Your task to perform on an android device: Show me recent news Image 0: 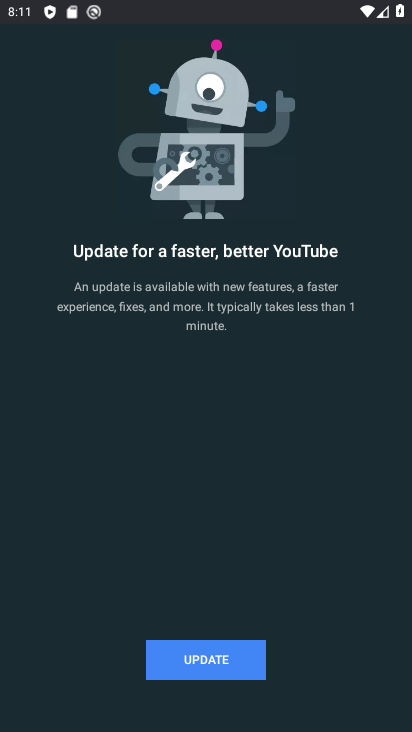
Step 0: press home button
Your task to perform on an android device: Show me recent news Image 1: 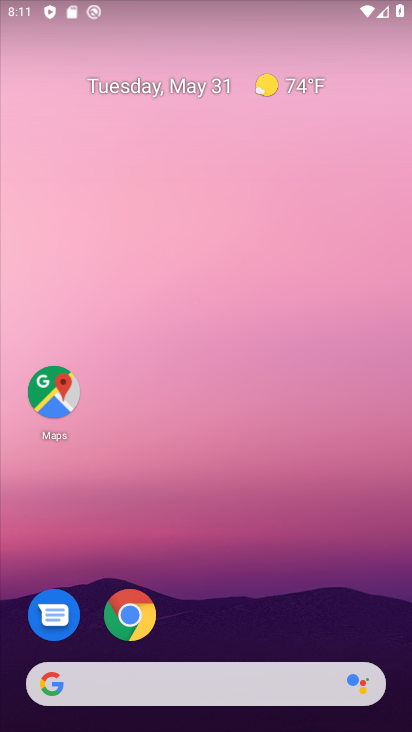
Step 1: drag from (197, 629) to (203, 177)
Your task to perform on an android device: Show me recent news Image 2: 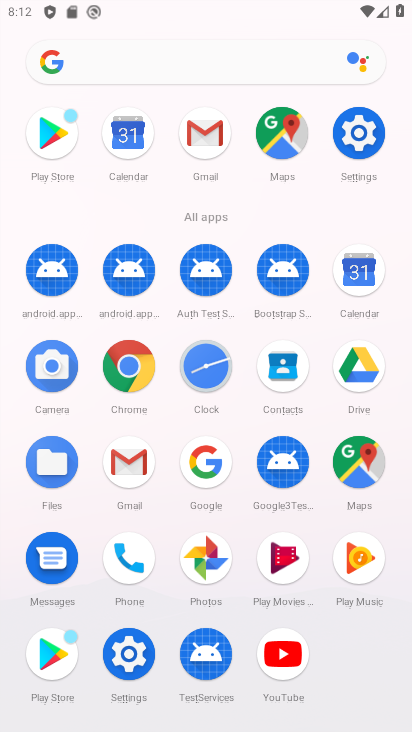
Step 2: click (205, 472)
Your task to perform on an android device: Show me recent news Image 3: 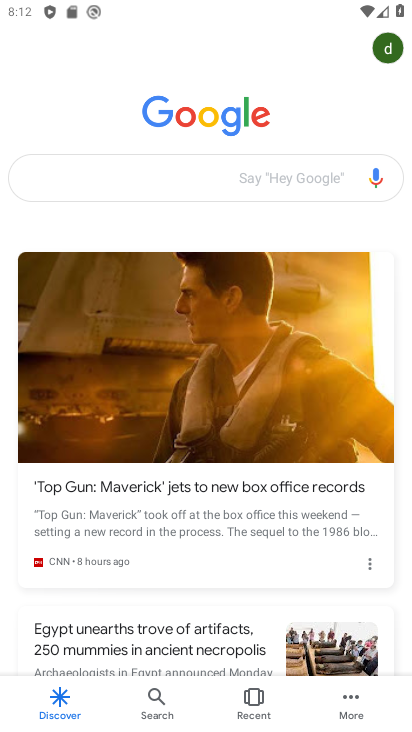
Step 3: click (171, 154)
Your task to perform on an android device: Show me recent news Image 4: 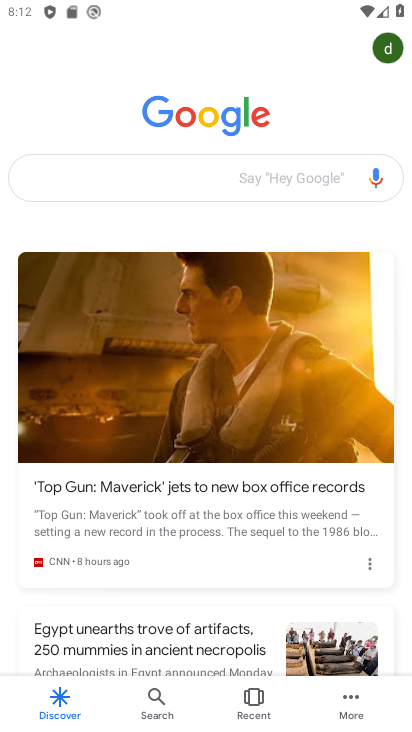
Step 4: click (154, 168)
Your task to perform on an android device: Show me recent news Image 5: 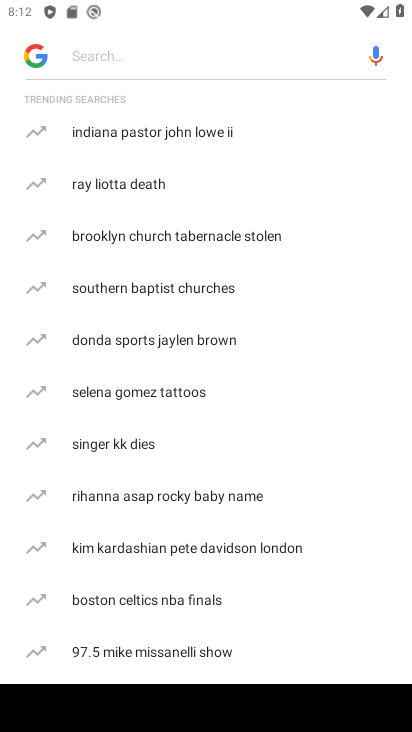
Step 5: type "news"
Your task to perform on an android device: Show me recent news Image 6: 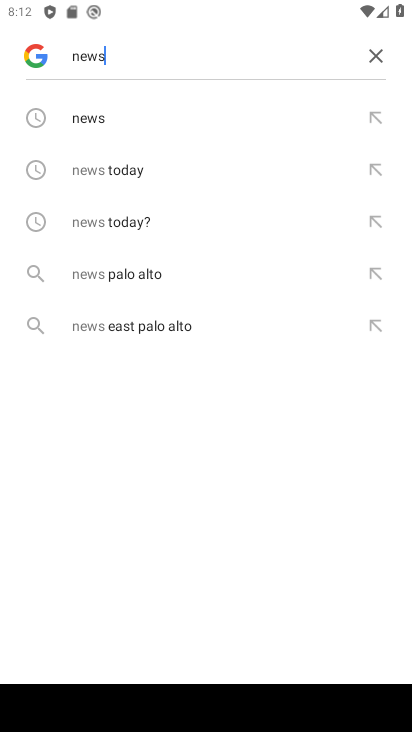
Step 6: click (132, 123)
Your task to perform on an android device: Show me recent news Image 7: 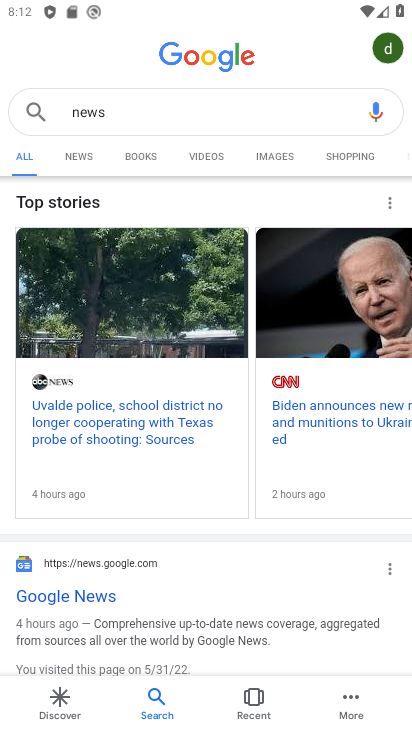
Step 7: click (85, 158)
Your task to perform on an android device: Show me recent news Image 8: 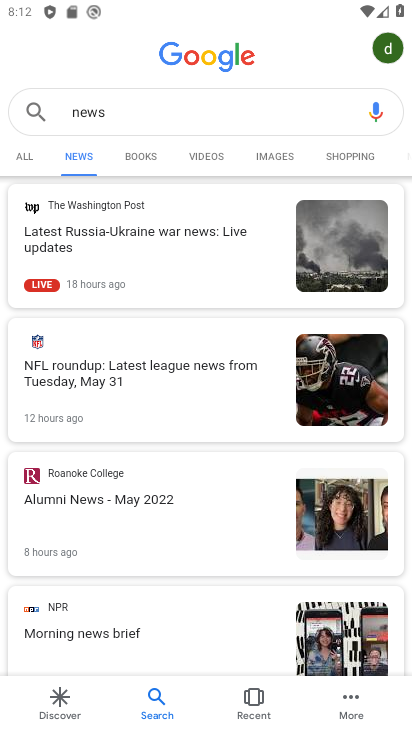
Step 8: task complete